Your task to perform on an android device: Show me the alarms in the clock app Image 0: 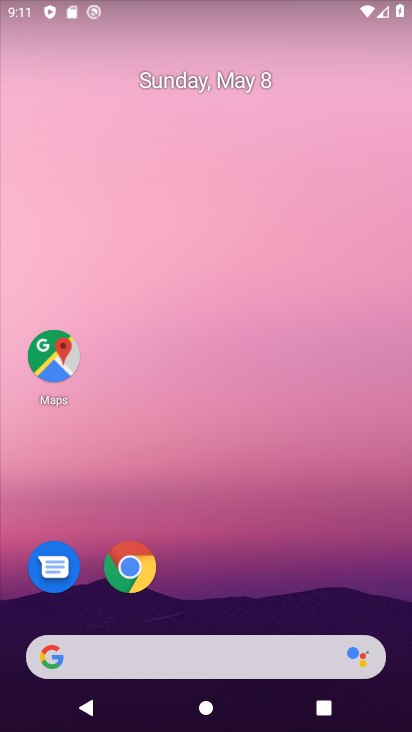
Step 0: drag from (365, 610) to (84, 22)
Your task to perform on an android device: Show me the alarms in the clock app Image 1: 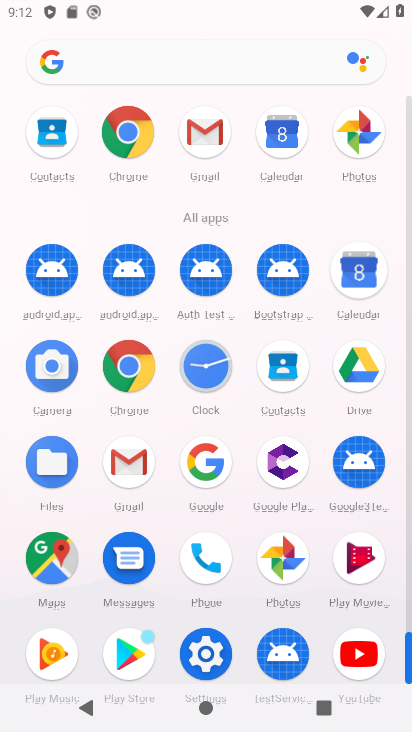
Step 1: click (207, 360)
Your task to perform on an android device: Show me the alarms in the clock app Image 2: 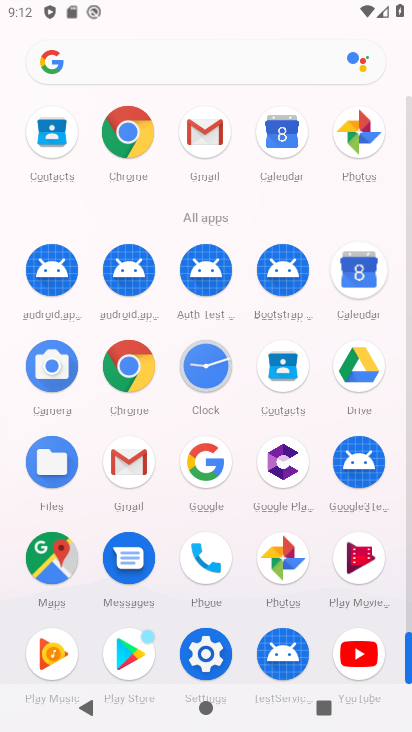
Step 2: click (207, 360)
Your task to perform on an android device: Show me the alarms in the clock app Image 3: 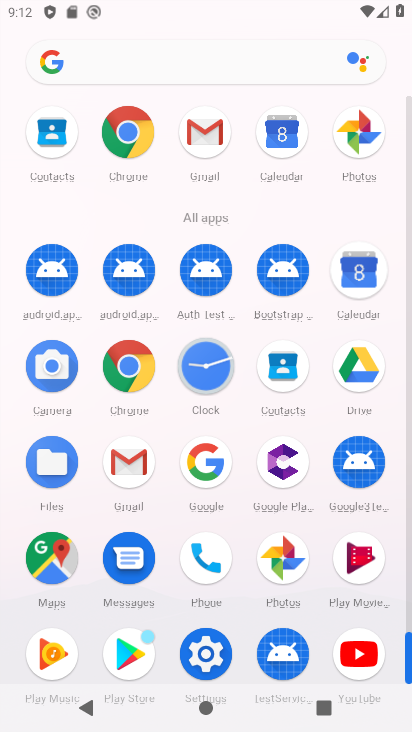
Step 3: click (206, 360)
Your task to perform on an android device: Show me the alarms in the clock app Image 4: 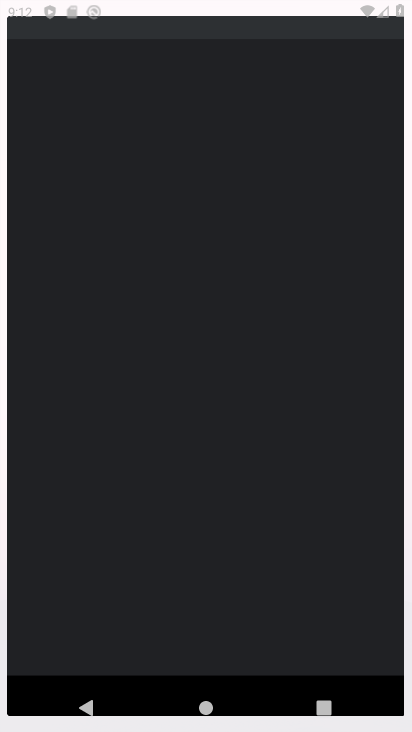
Step 4: click (205, 358)
Your task to perform on an android device: Show me the alarms in the clock app Image 5: 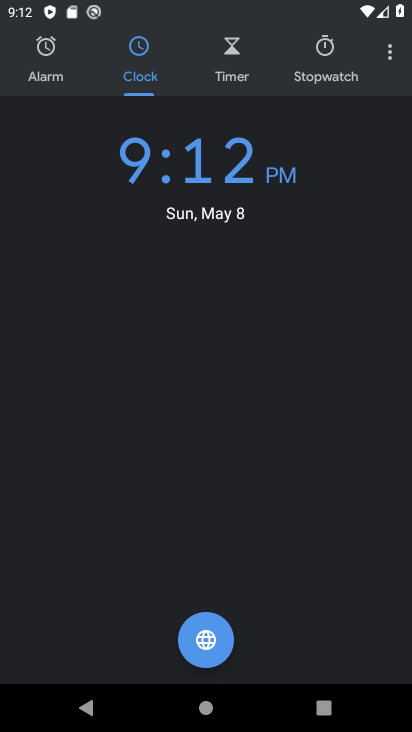
Step 5: click (47, 65)
Your task to perform on an android device: Show me the alarms in the clock app Image 6: 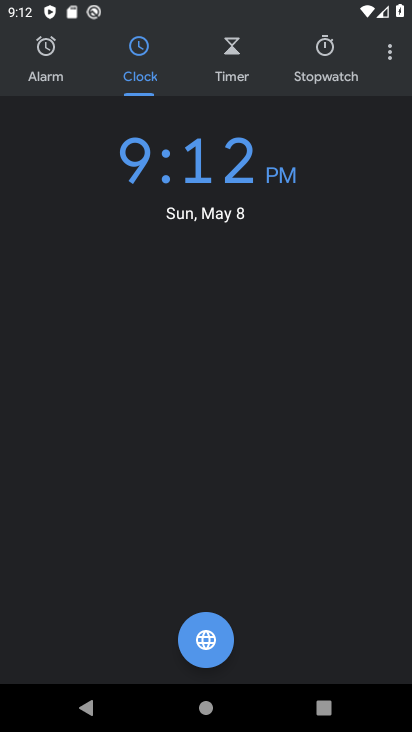
Step 6: click (47, 65)
Your task to perform on an android device: Show me the alarms in the clock app Image 7: 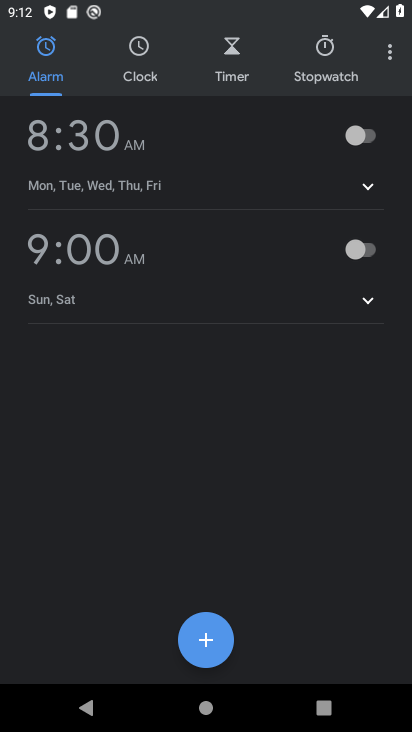
Step 7: task complete